Your task to perform on an android device: Is it going to rain today? Image 0: 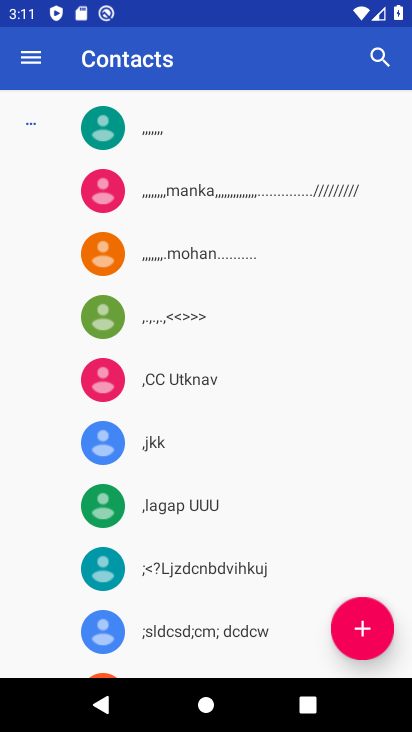
Step 0: press home button
Your task to perform on an android device: Is it going to rain today? Image 1: 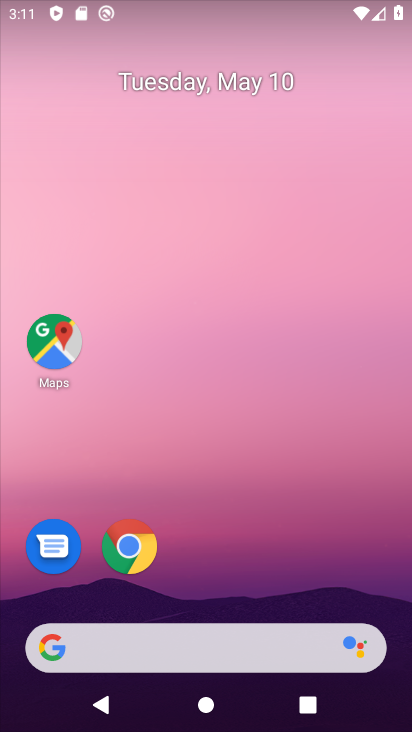
Step 1: click (206, 638)
Your task to perform on an android device: Is it going to rain today? Image 2: 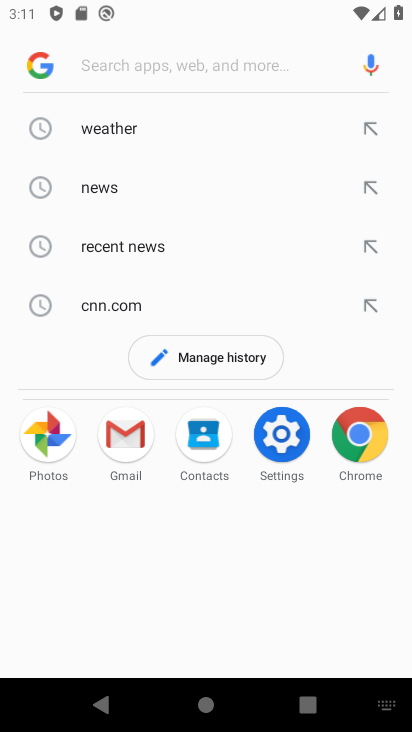
Step 2: click (132, 127)
Your task to perform on an android device: Is it going to rain today? Image 3: 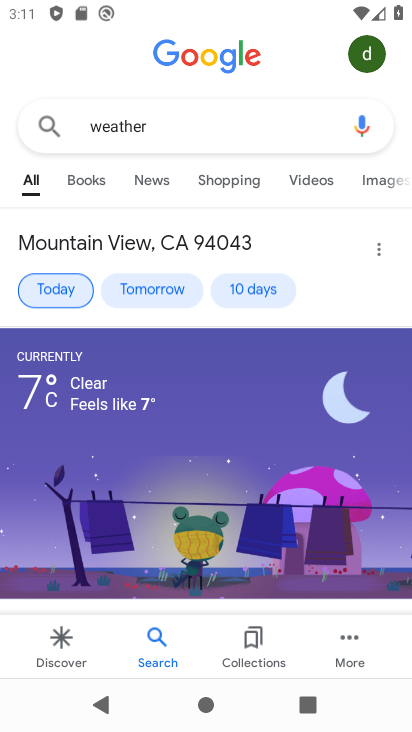
Step 3: task complete